Your task to perform on an android device: remove spam from my inbox in the gmail app Image 0: 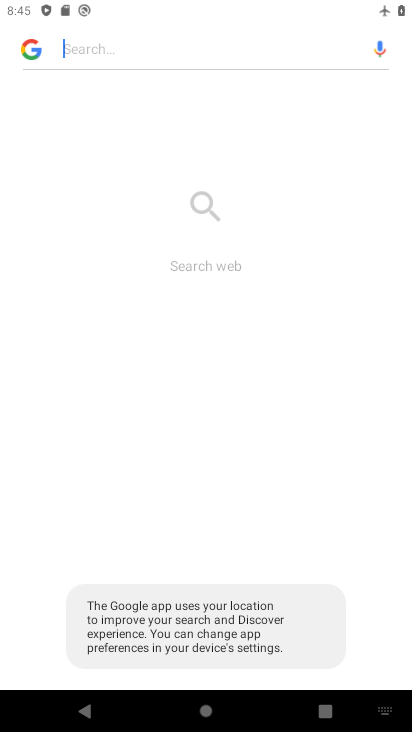
Step 0: press home button
Your task to perform on an android device: remove spam from my inbox in the gmail app Image 1: 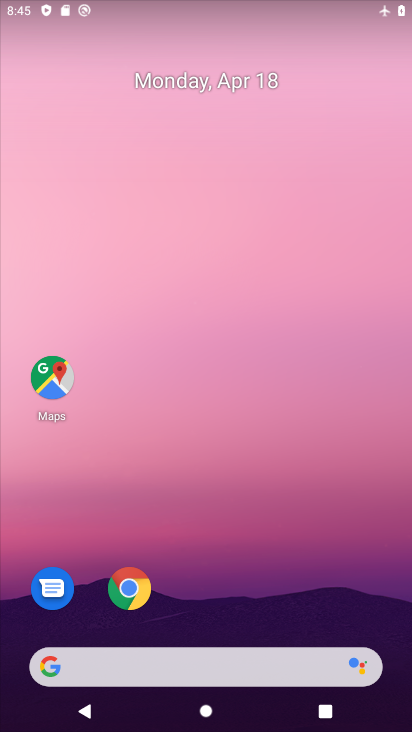
Step 1: drag from (275, 618) to (342, 185)
Your task to perform on an android device: remove spam from my inbox in the gmail app Image 2: 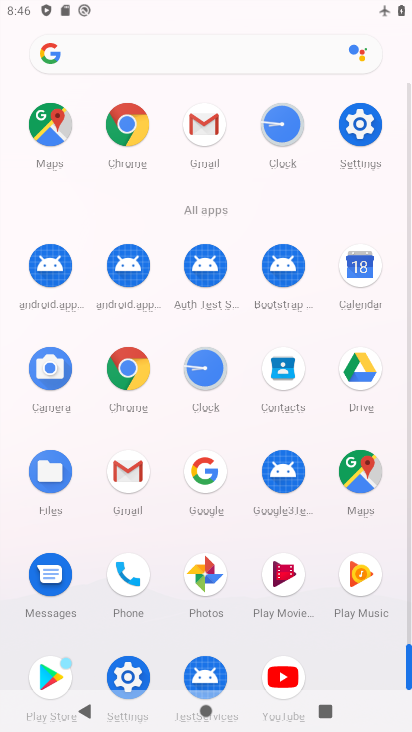
Step 2: click (123, 480)
Your task to perform on an android device: remove spam from my inbox in the gmail app Image 3: 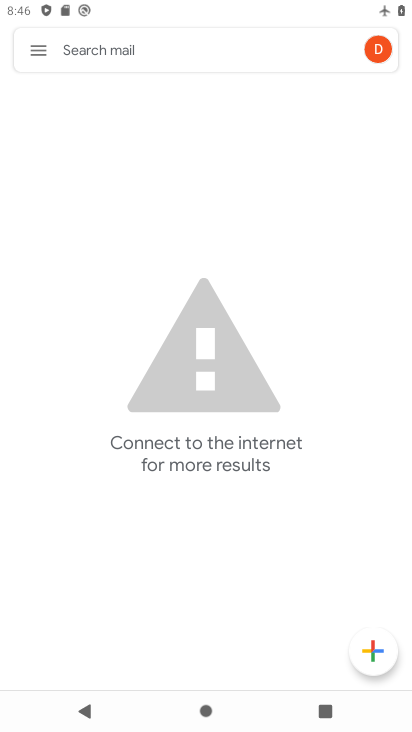
Step 3: click (49, 47)
Your task to perform on an android device: remove spam from my inbox in the gmail app Image 4: 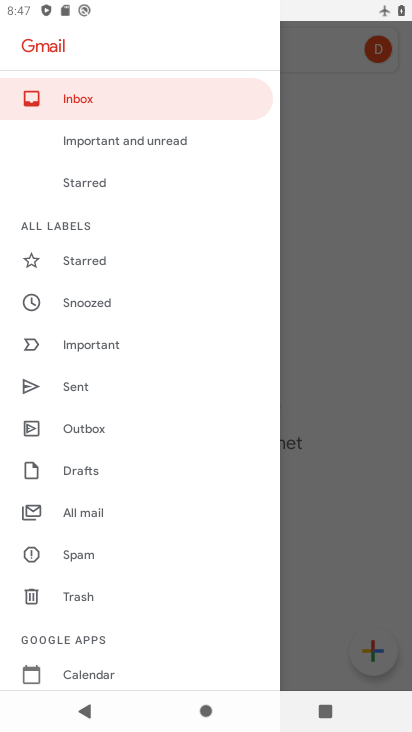
Step 4: click (91, 556)
Your task to perform on an android device: remove spam from my inbox in the gmail app Image 5: 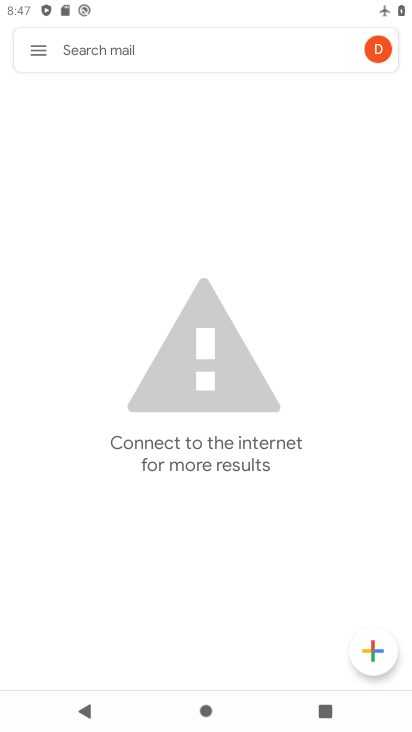
Step 5: task complete